Your task to perform on an android device: empty trash in the gmail app Image 0: 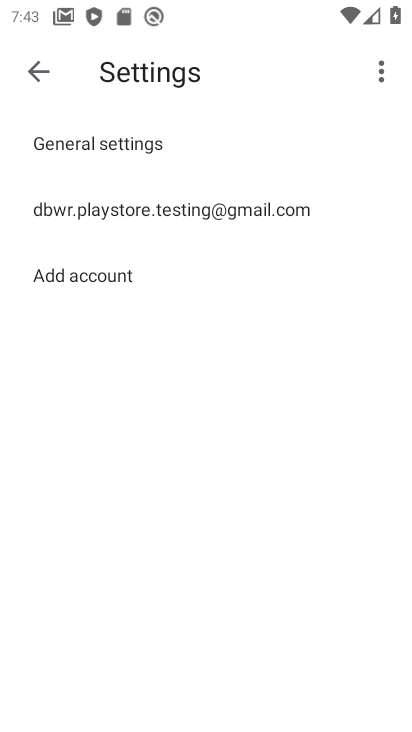
Step 0: click (33, 92)
Your task to perform on an android device: empty trash in the gmail app Image 1: 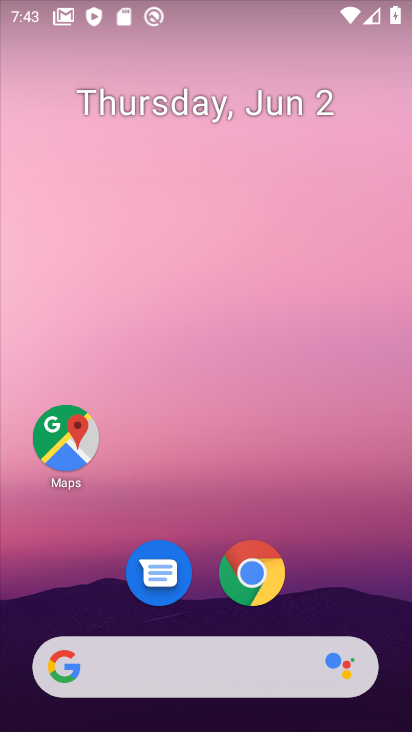
Step 1: drag from (322, 534) to (260, 55)
Your task to perform on an android device: empty trash in the gmail app Image 2: 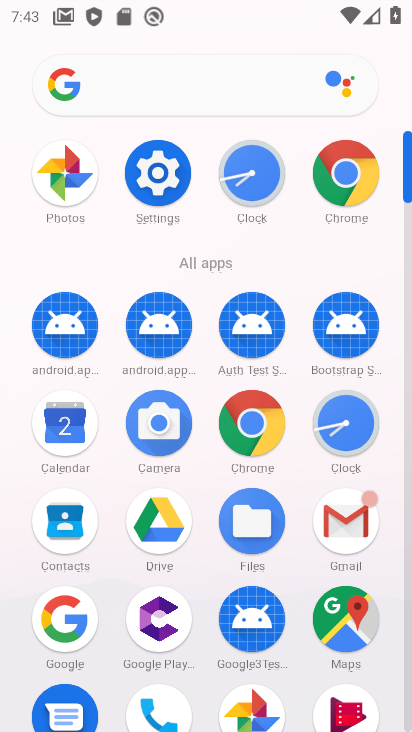
Step 2: click (331, 526)
Your task to perform on an android device: empty trash in the gmail app Image 3: 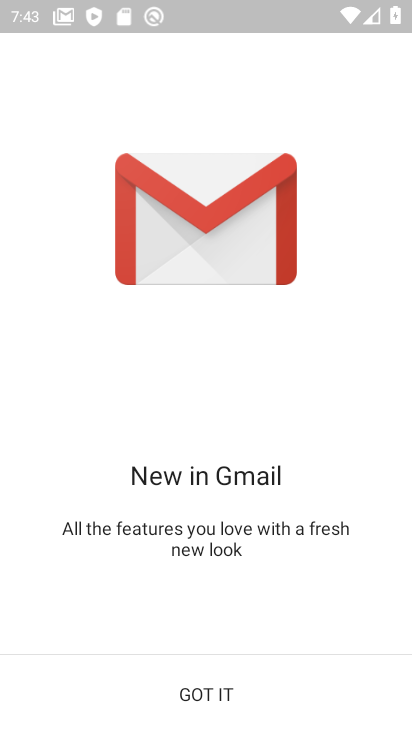
Step 3: click (215, 696)
Your task to perform on an android device: empty trash in the gmail app Image 4: 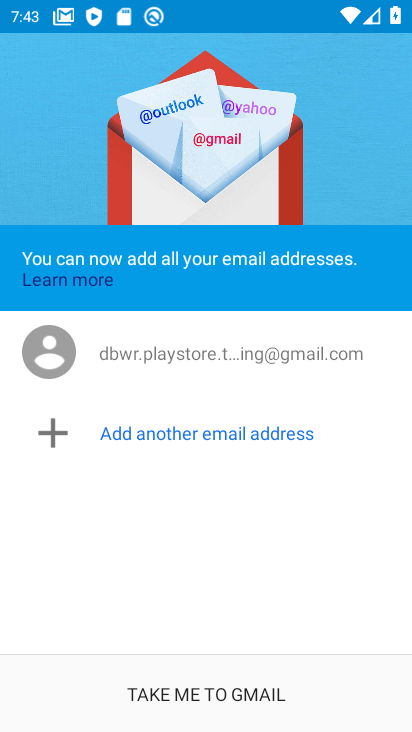
Step 4: click (188, 696)
Your task to perform on an android device: empty trash in the gmail app Image 5: 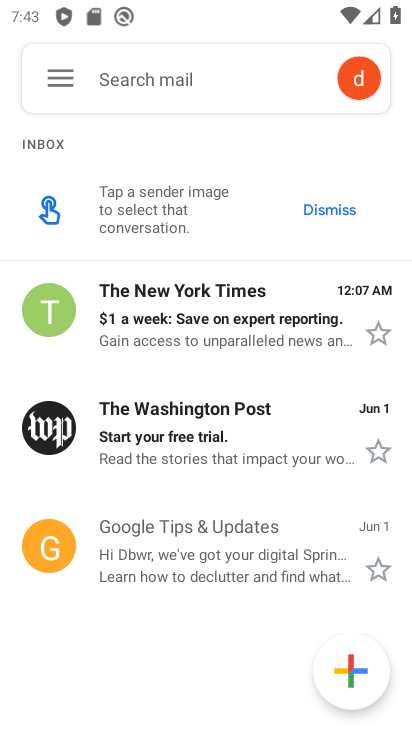
Step 5: click (56, 87)
Your task to perform on an android device: empty trash in the gmail app Image 6: 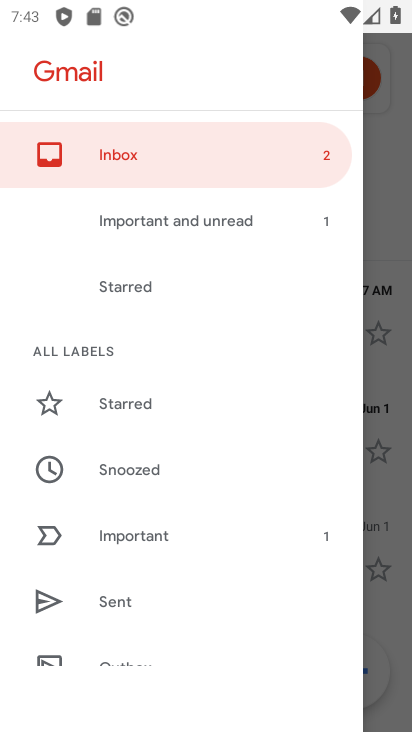
Step 6: drag from (157, 578) to (245, 152)
Your task to perform on an android device: empty trash in the gmail app Image 7: 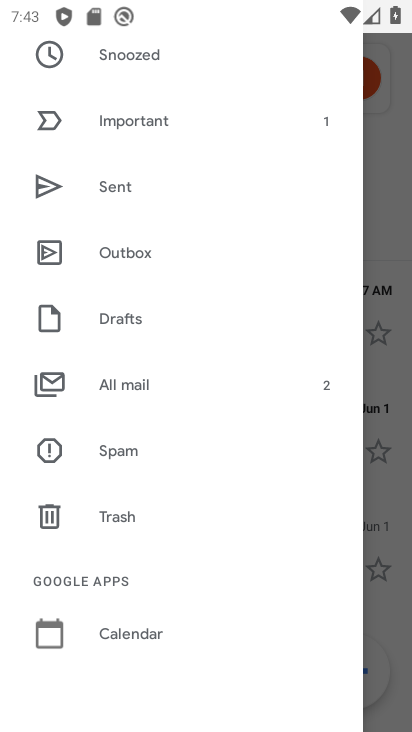
Step 7: click (116, 532)
Your task to perform on an android device: empty trash in the gmail app Image 8: 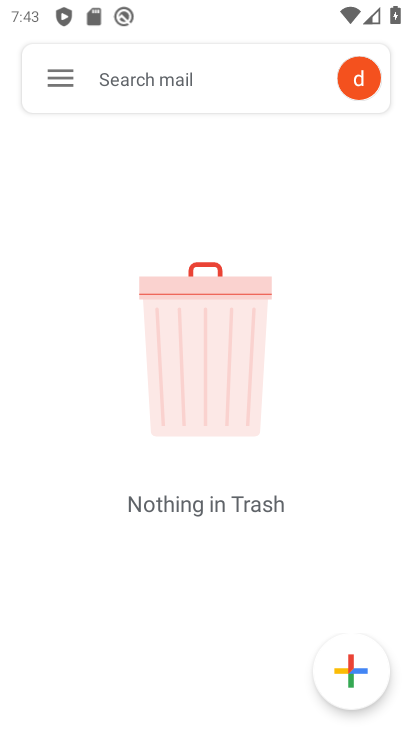
Step 8: task complete